Your task to perform on an android device: Go to location settings Image 0: 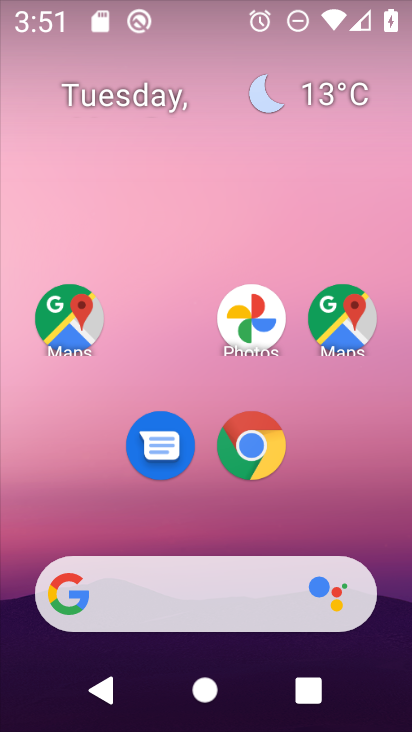
Step 0: drag from (396, 571) to (400, 188)
Your task to perform on an android device: Go to location settings Image 1: 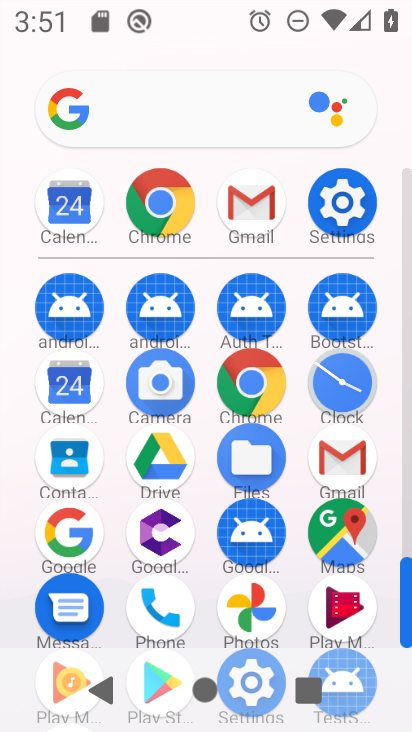
Step 1: click (347, 222)
Your task to perform on an android device: Go to location settings Image 2: 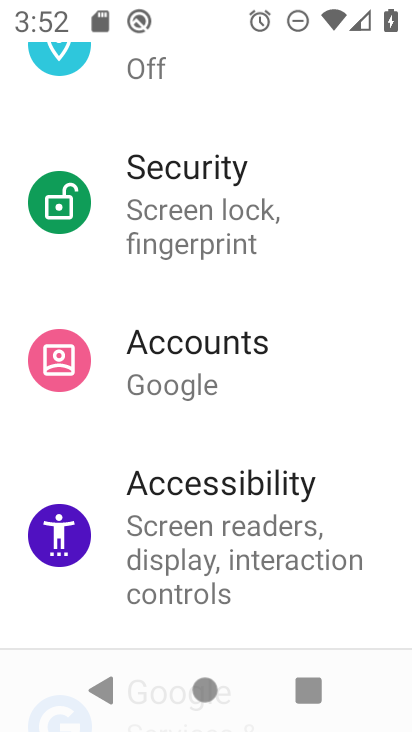
Step 2: drag from (382, 503) to (382, 436)
Your task to perform on an android device: Go to location settings Image 3: 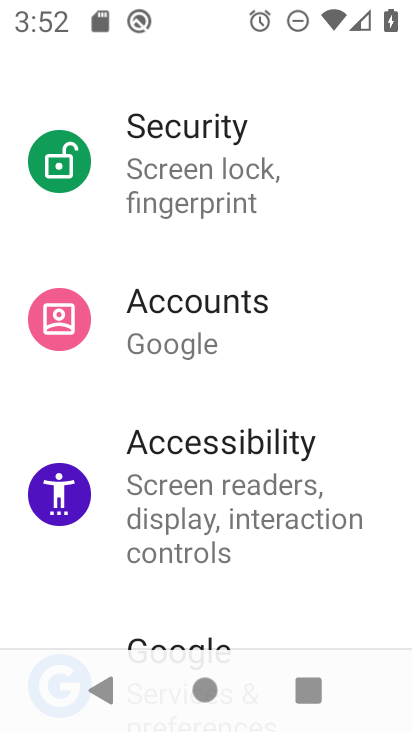
Step 3: drag from (378, 571) to (377, 494)
Your task to perform on an android device: Go to location settings Image 4: 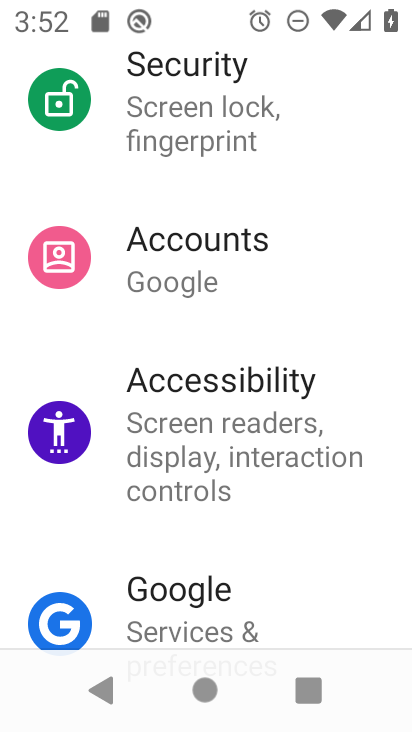
Step 4: drag from (366, 591) to (369, 491)
Your task to perform on an android device: Go to location settings Image 5: 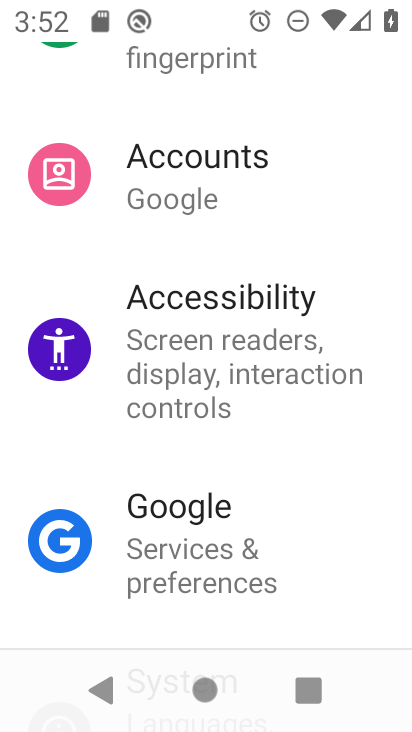
Step 5: drag from (357, 580) to (363, 491)
Your task to perform on an android device: Go to location settings Image 6: 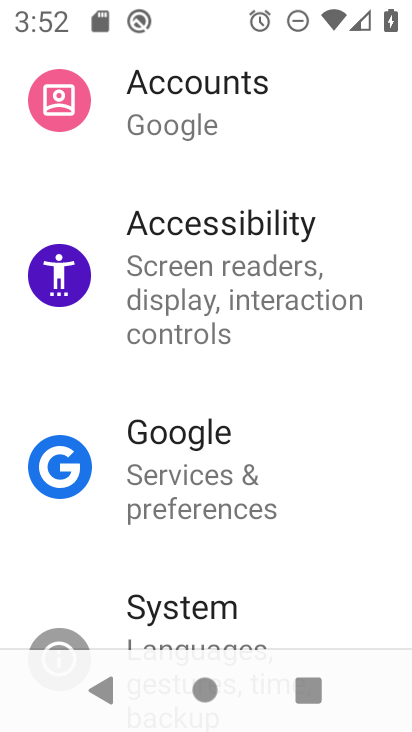
Step 6: drag from (341, 598) to (355, 465)
Your task to perform on an android device: Go to location settings Image 7: 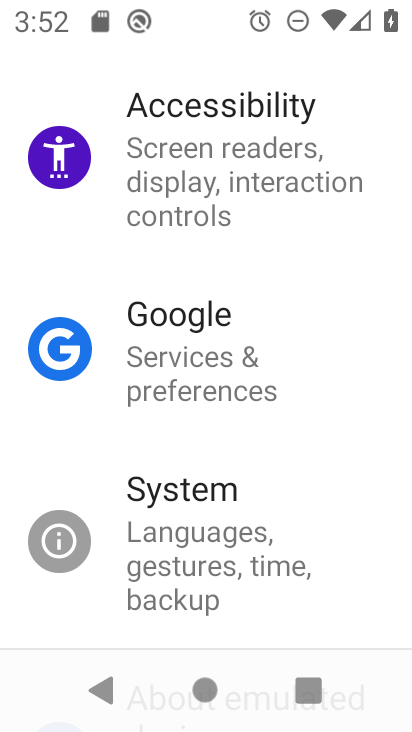
Step 7: drag from (348, 603) to (356, 399)
Your task to perform on an android device: Go to location settings Image 8: 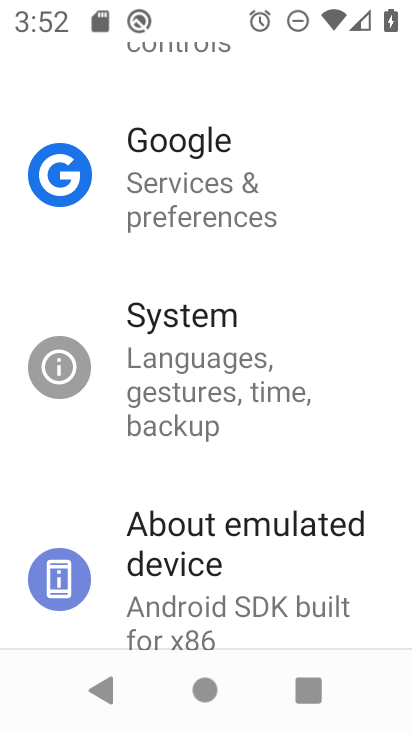
Step 8: drag from (381, 561) to (392, 423)
Your task to perform on an android device: Go to location settings Image 9: 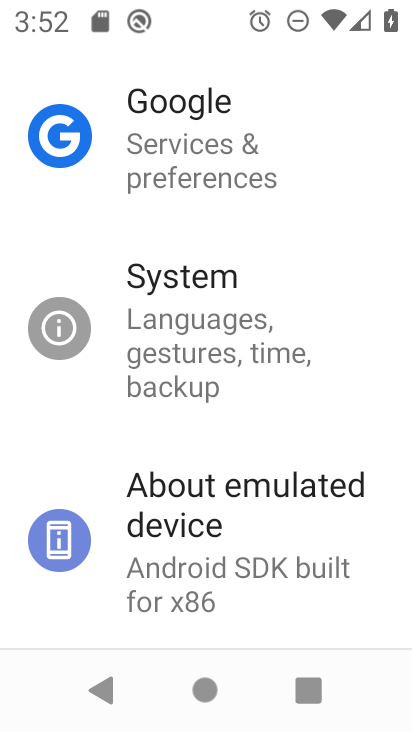
Step 9: drag from (382, 373) to (371, 445)
Your task to perform on an android device: Go to location settings Image 10: 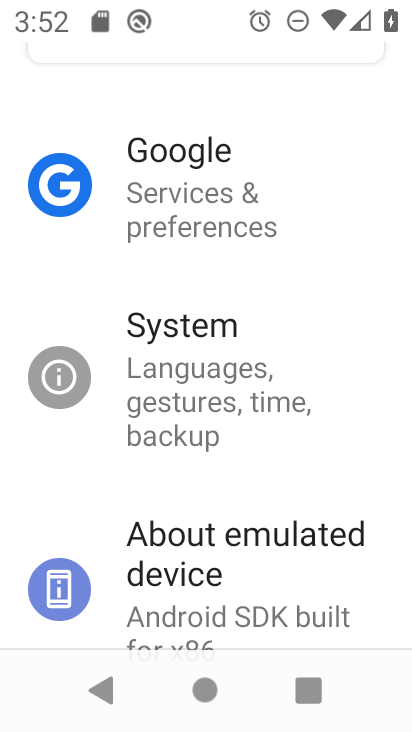
Step 10: drag from (373, 353) to (370, 417)
Your task to perform on an android device: Go to location settings Image 11: 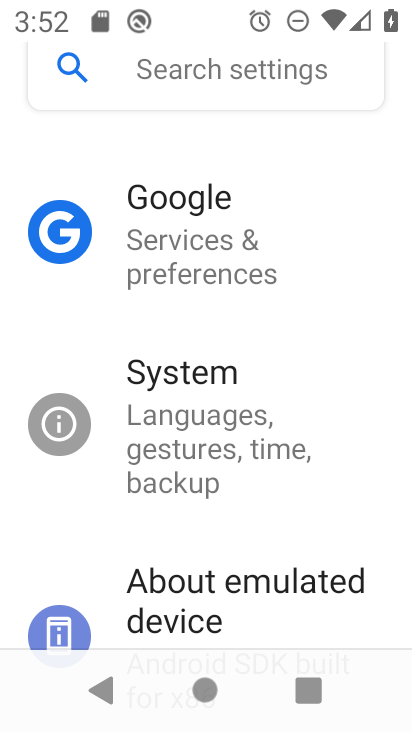
Step 11: drag from (368, 336) to (371, 399)
Your task to perform on an android device: Go to location settings Image 12: 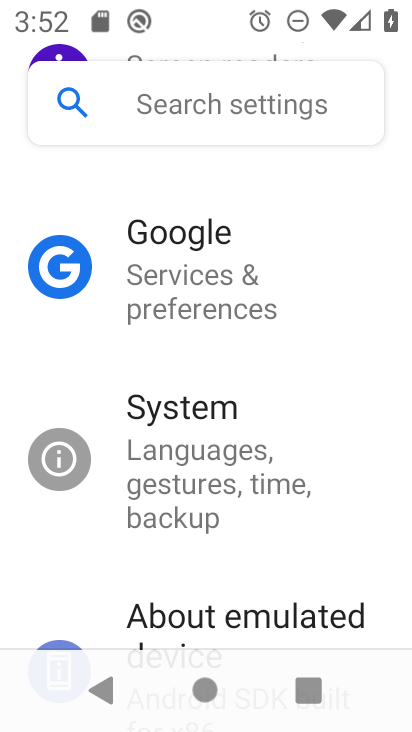
Step 12: drag from (367, 323) to (370, 403)
Your task to perform on an android device: Go to location settings Image 13: 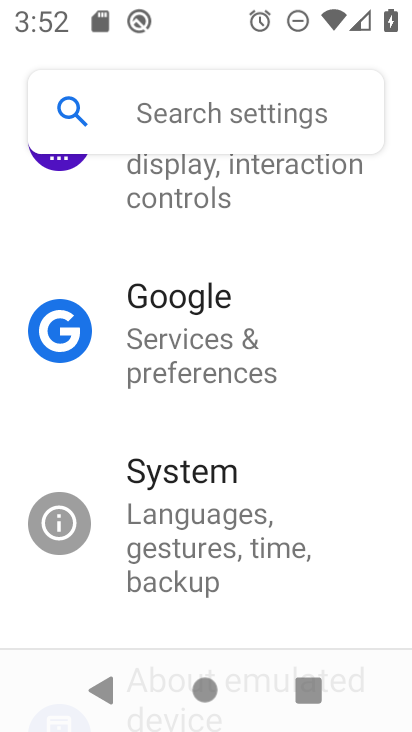
Step 13: drag from (359, 330) to (357, 385)
Your task to perform on an android device: Go to location settings Image 14: 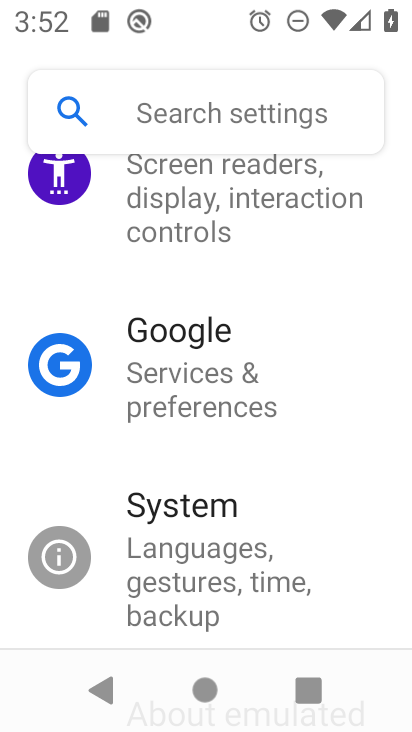
Step 14: drag from (358, 335) to (357, 402)
Your task to perform on an android device: Go to location settings Image 15: 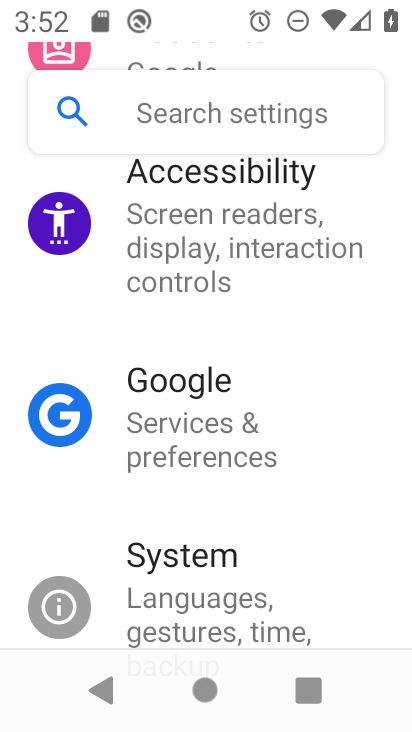
Step 15: drag from (355, 333) to (348, 400)
Your task to perform on an android device: Go to location settings Image 16: 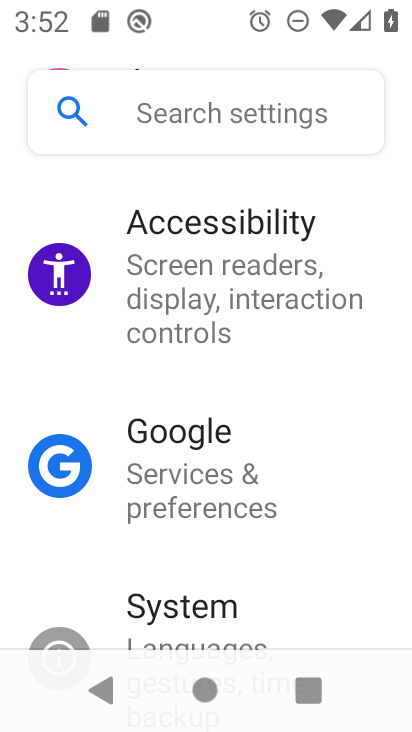
Step 16: drag from (371, 308) to (371, 378)
Your task to perform on an android device: Go to location settings Image 17: 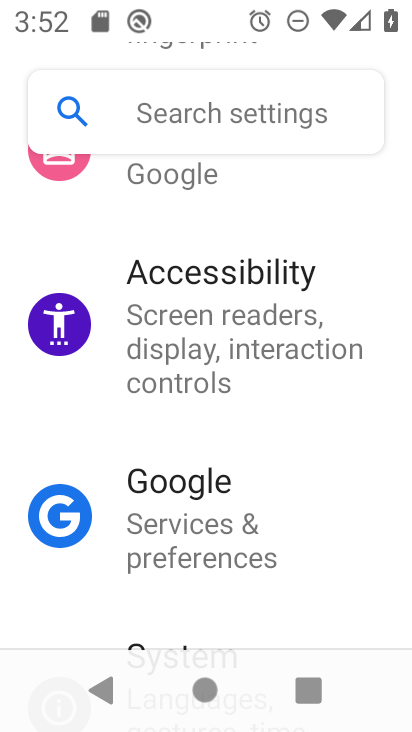
Step 17: drag from (389, 290) to (390, 378)
Your task to perform on an android device: Go to location settings Image 18: 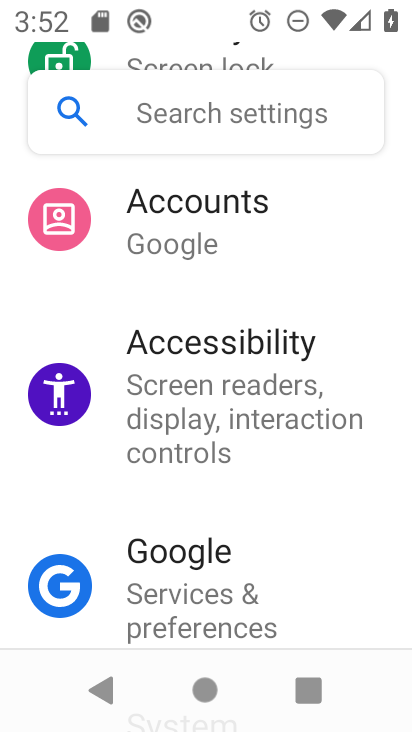
Step 18: drag from (364, 287) to (353, 390)
Your task to perform on an android device: Go to location settings Image 19: 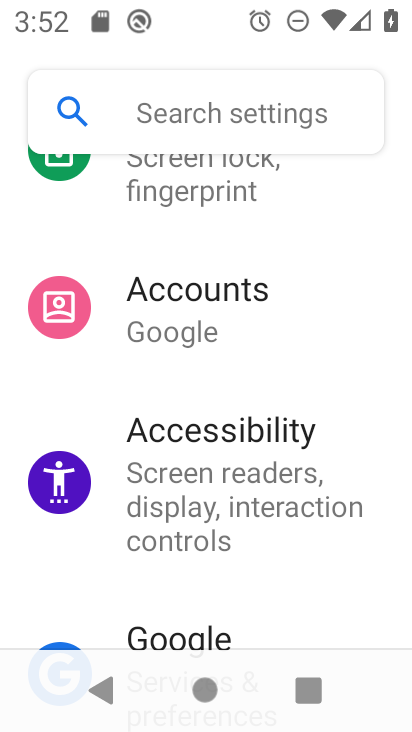
Step 19: drag from (347, 283) to (339, 394)
Your task to perform on an android device: Go to location settings Image 20: 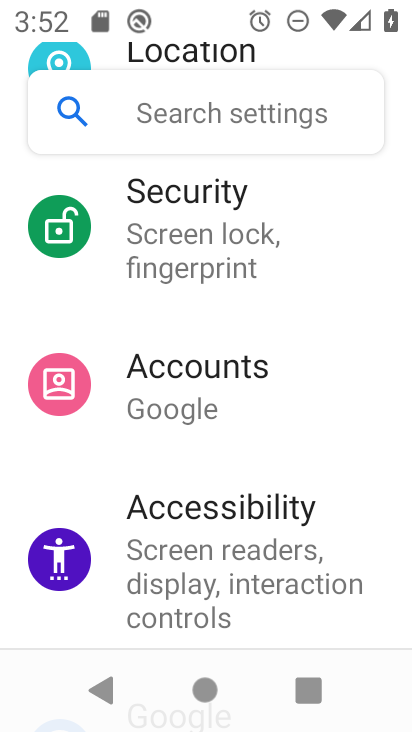
Step 20: drag from (344, 261) to (345, 357)
Your task to perform on an android device: Go to location settings Image 21: 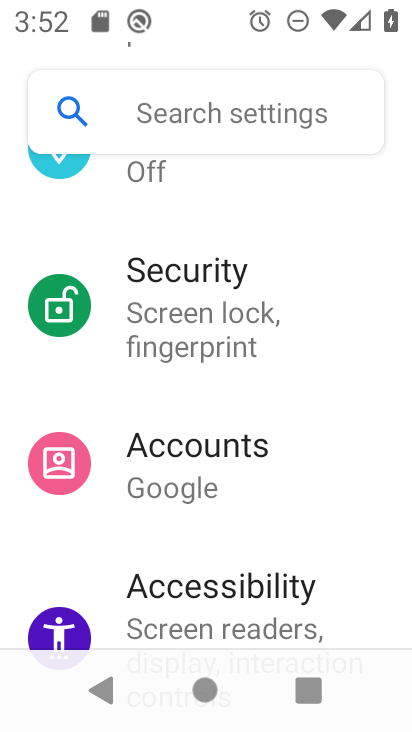
Step 21: drag from (337, 233) to (350, 365)
Your task to perform on an android device: Go to location settings Image 22: 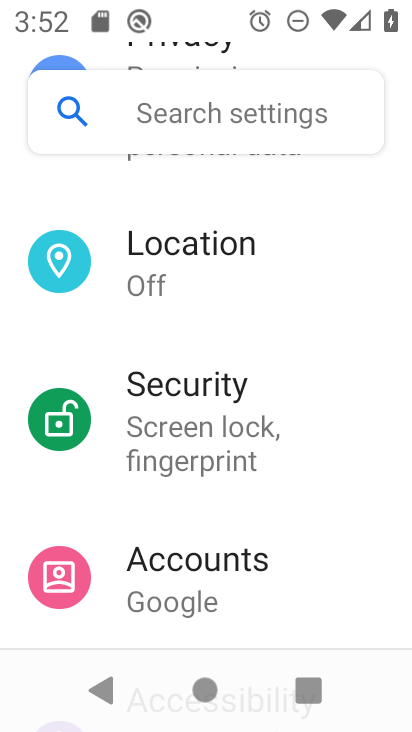
Step 22: click (229, 260)
Your task to perform on an android device: Go to location settings Image 23: 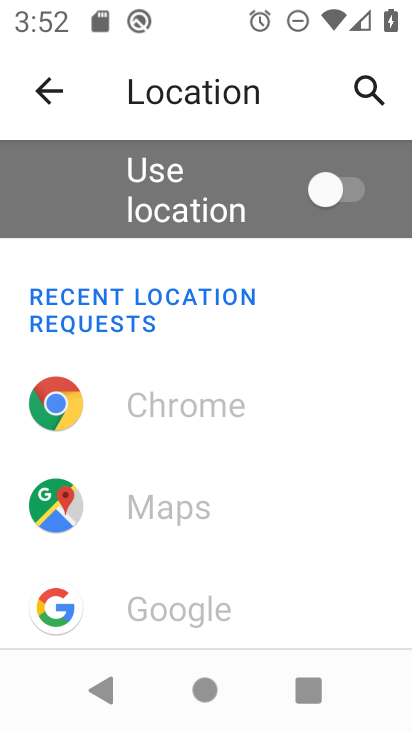
Step 23: task complete